Your task to perform on an android device: turn off sleep mode Image 0: 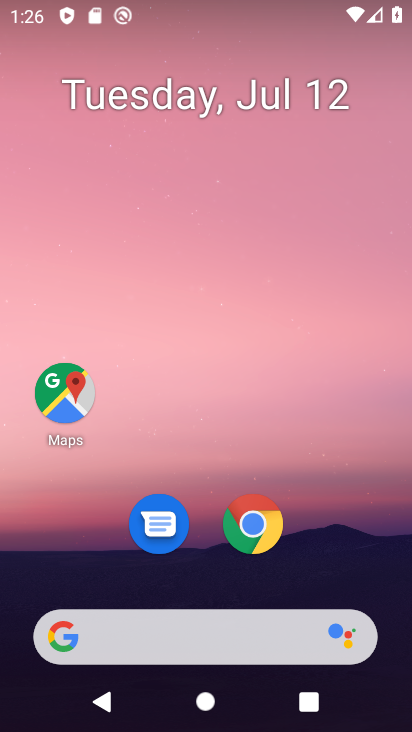
Step 0: drag from (308, 527) to (340, 27)
Your task to perform on an android device: turn off sleep mode Image 1: 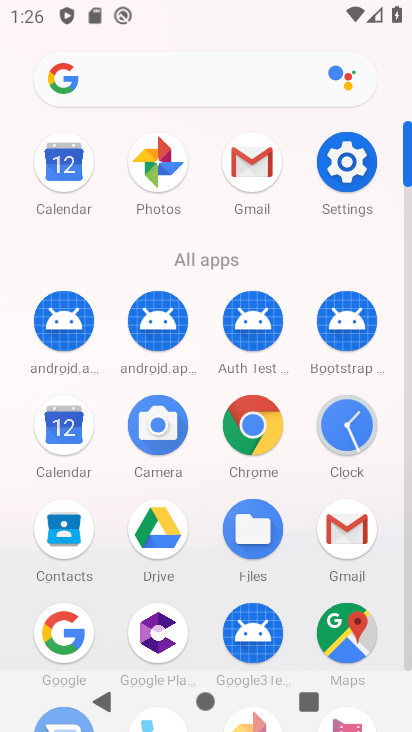
Step 1: click (348, 161)
Your task to perform on an android device: turn off sleep mode Image 2: 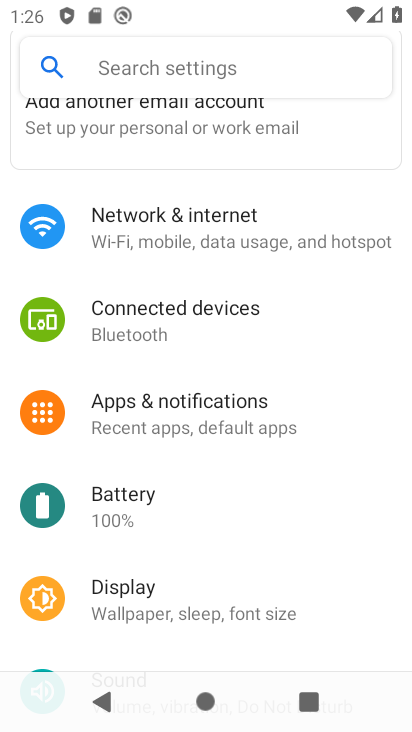
Step 2: click (192, 608)
Your task to perform on an android device: turn off sleep mode Image 3: 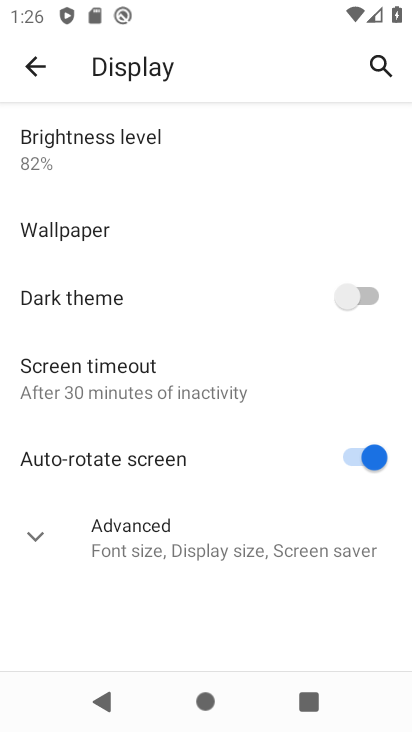
Step 3: click (42, 537)
Your task to perform on an android device: turn off sleep mode Image 4: 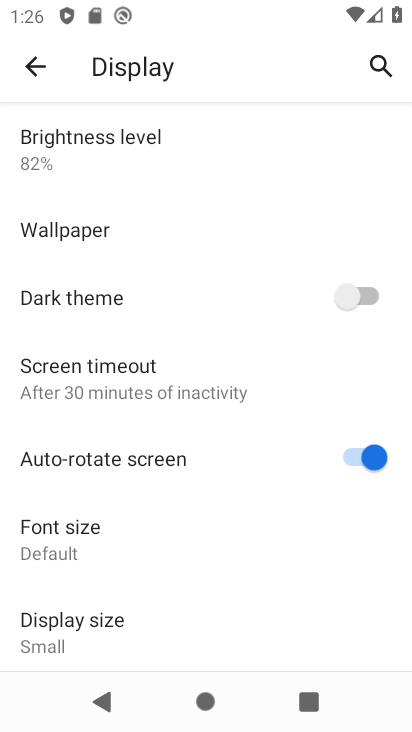
Step 4: task complete